Your task to perform on an android device: Go to internet settings Image 0: 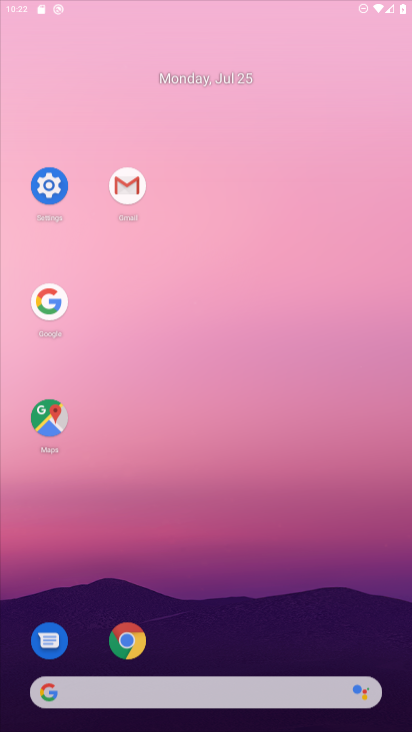
Step 0: click (41, 192)
Your task to perform on an android device: Go to internet settings Image 1: 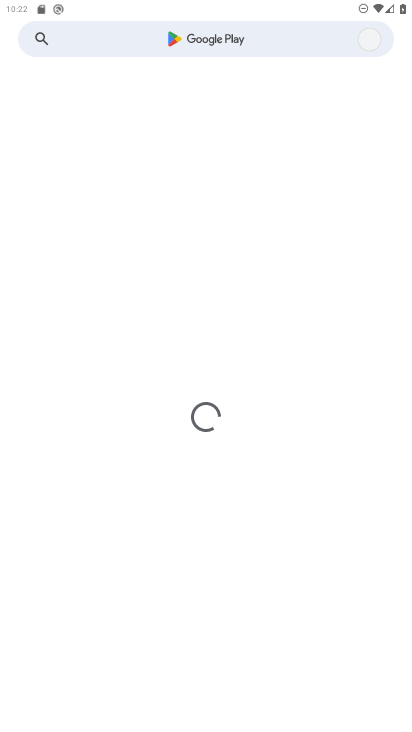
Step 1: press back button
Your task to perform on an android device: Go to internet settings Image 2: 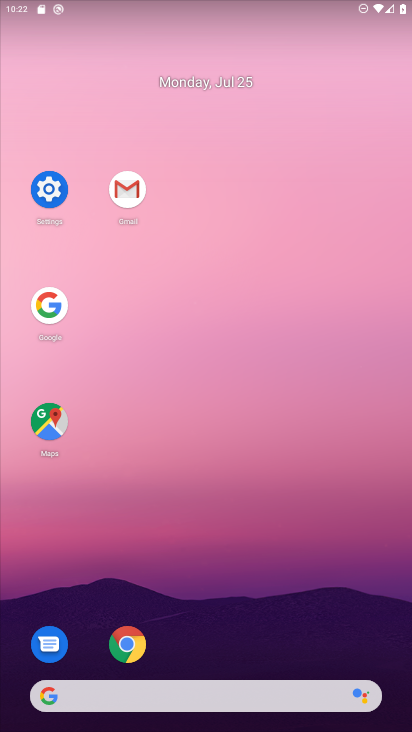
Step 2: click (54, 187)
Your task to perform on an android device: Go to internet settings Image 3: 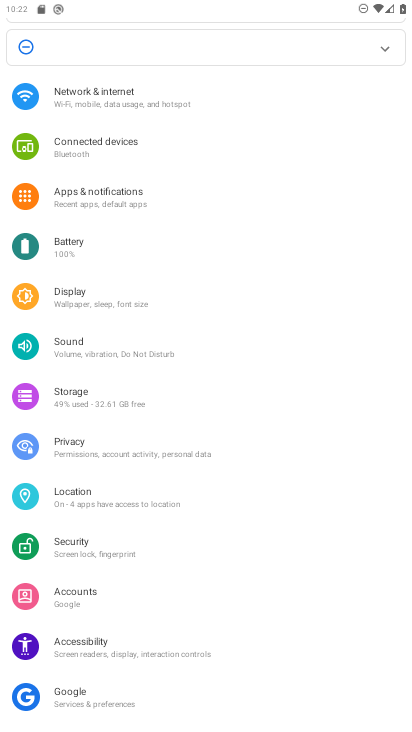
Step 3: click (170, 100)
Your task to perform on an android device: Go to internet settings Image 4: 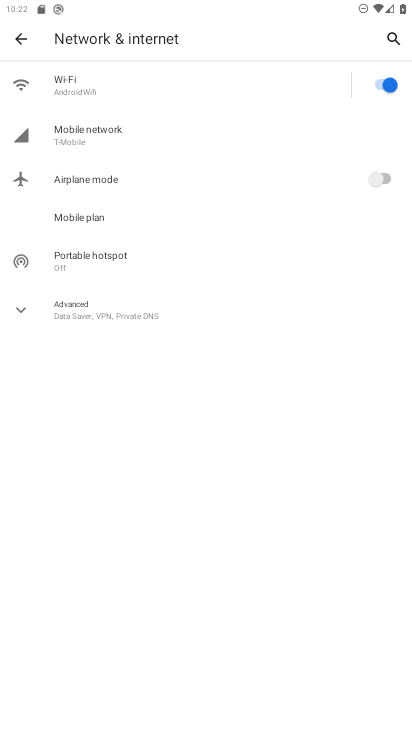
Step 4: task complete